Your task to perform on an android device: Open Chrome and go to settings Image 0: 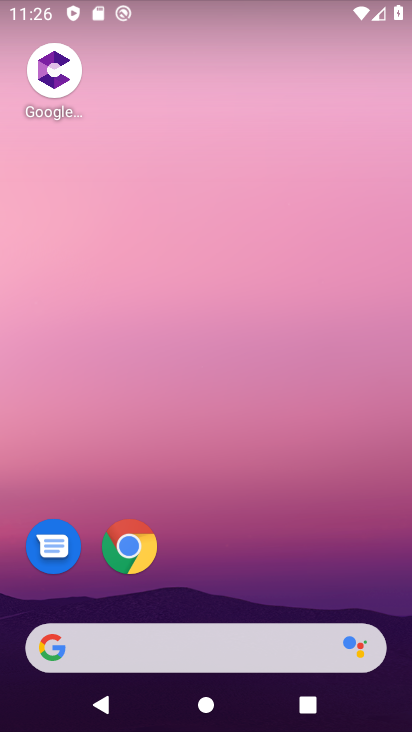
Step 0: click (124, 543)
Your task to perform on an android device: Open Chrome and go to settings Image 1: 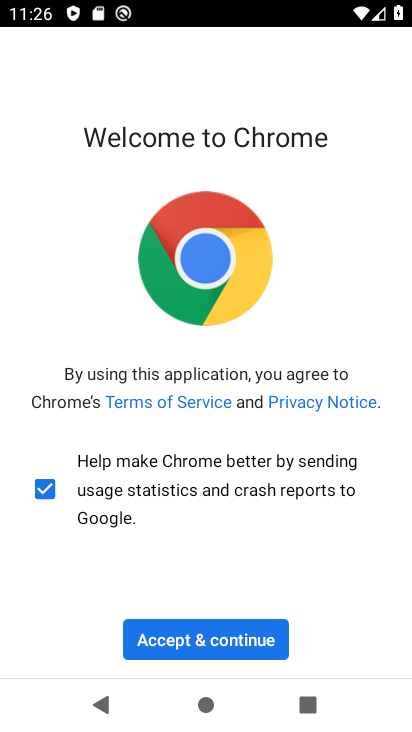
Step 1: click (232, 625)
Your task to perform on an android device: Open Chrome and go to settings Image 2: 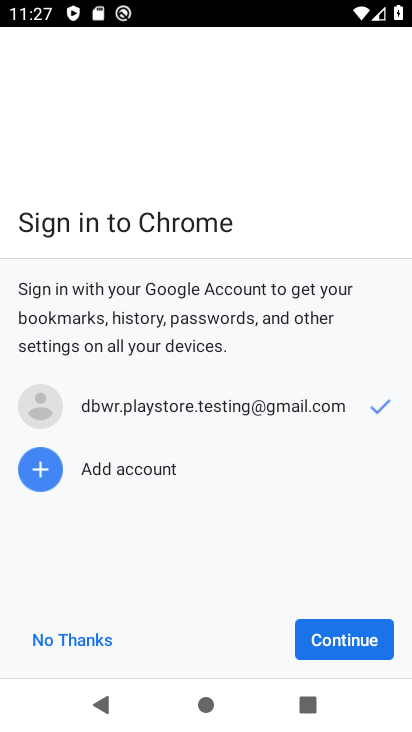
Step 2: click (379, 641)
Your task to perform on an android device: Open Chrome and go to settings Image 3: 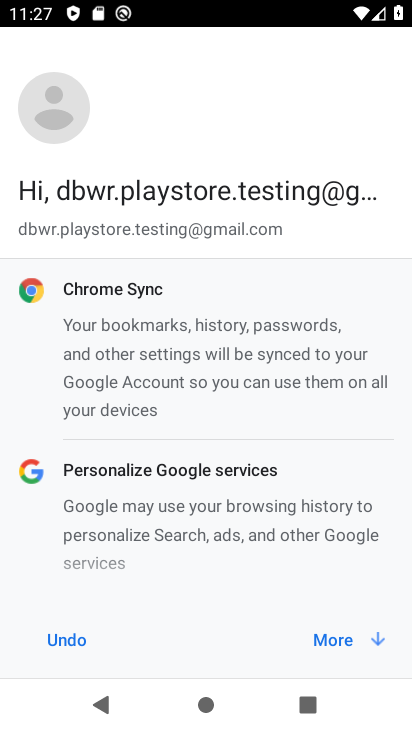
Step 3: click (326, 631)
Your task to perform on an android device: Open Chrome and go to settings Image 4: 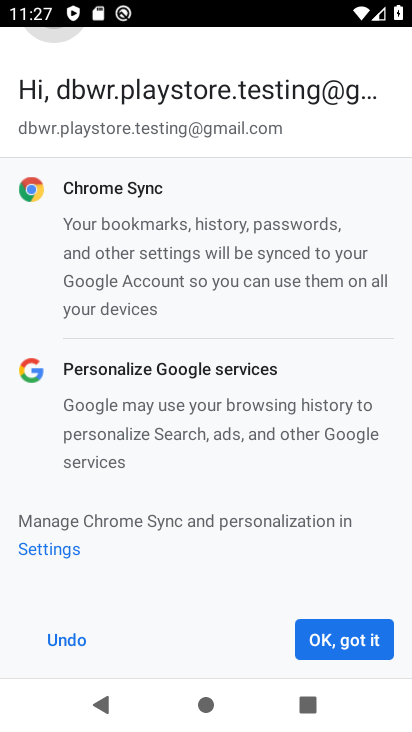
Step 4: click (323, 636)
Your task to perform on an android device: Open Chrome and go to settings Image 5: 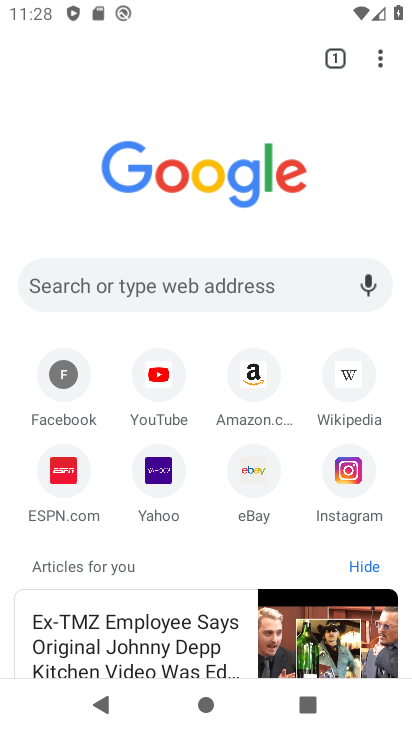
Step 5: click (380, 59)
Your task to perform on an android device: Open Chrome and go to settings Image 6: 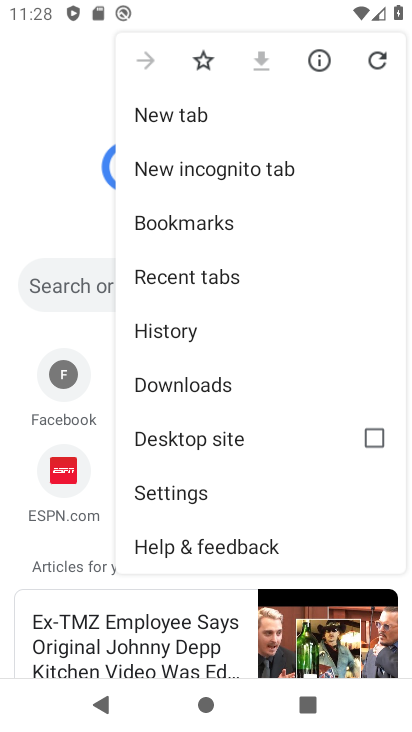
Step 6: click (212, 502)
Your task to perform on an android device: Open Chrome and go to settings Image 7: 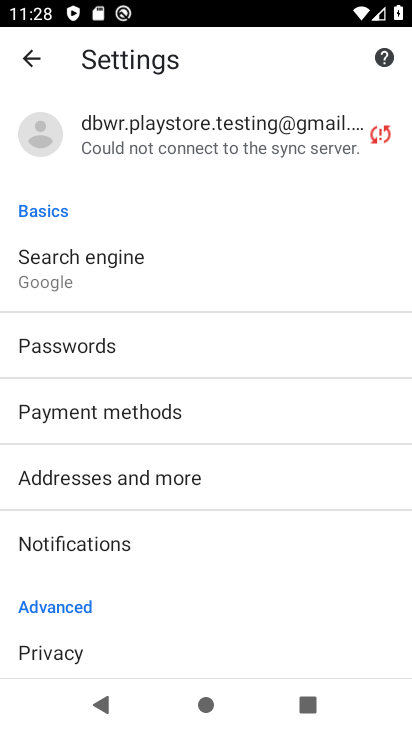
Step 7: task complete